Your task to perform on an android device: Open wifi settings Image 0: 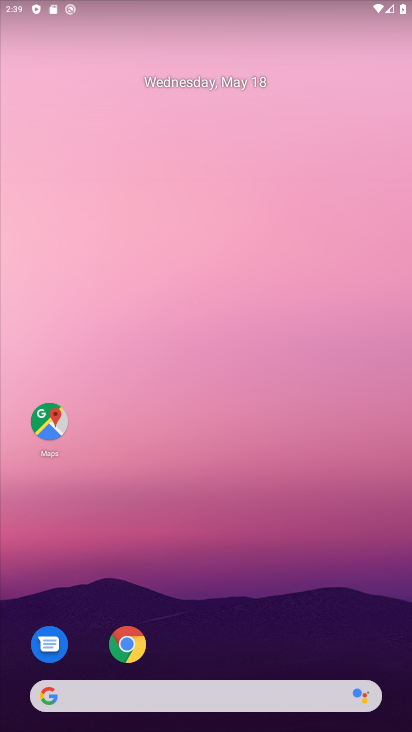
Step 0: drag from (194, 682) to (203, 166)
Your task to perform on an android device: Open wifi settings Image 1: 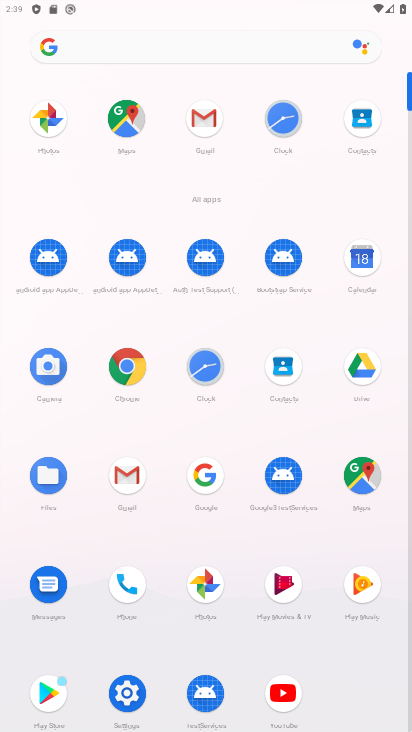
Step 1: drag from (153, 656) to (155, 277)
Your task to perform on an android device: Open wifi settings Image 2: 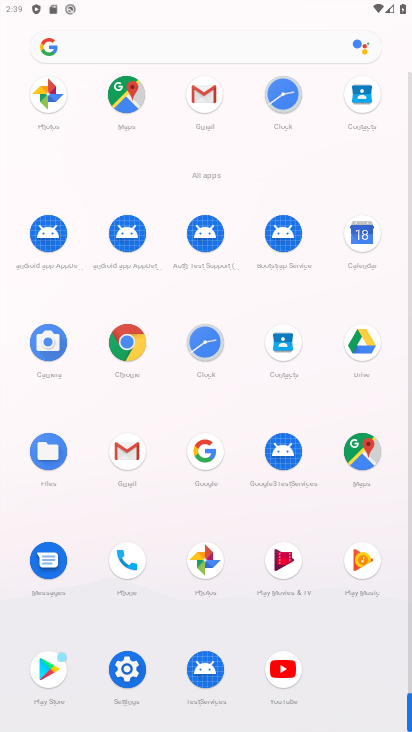
Step 2: click (139, 668)
Your task to perform on an android device: Open wifi settings Image 3: 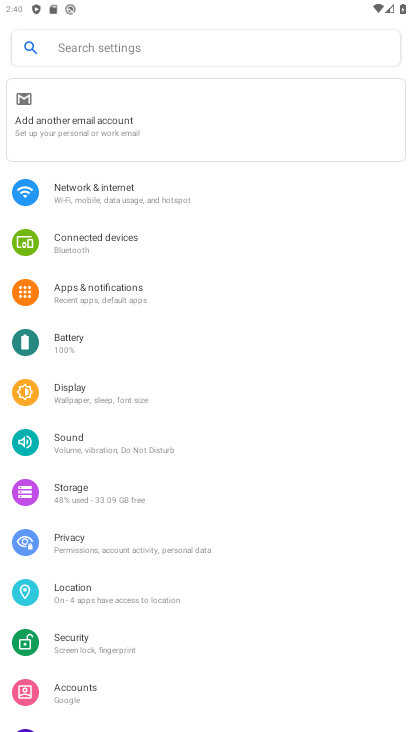
Step 3: drag from (60, 715) to (112, 418)
Your task to perform on an android device: Open wifi settings Image 4: 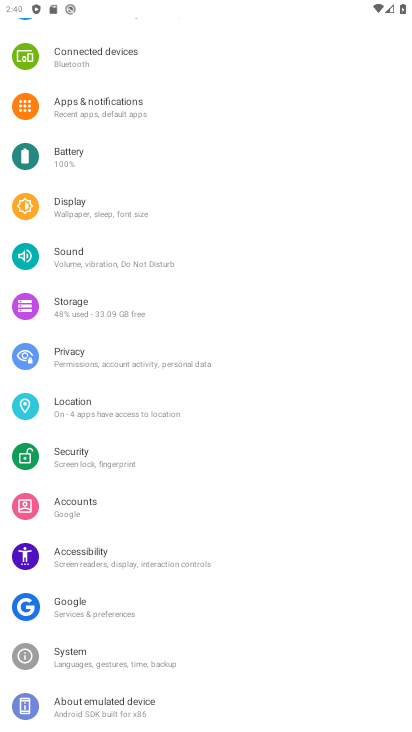
Step 4: drag from (161, 83) to (181, 592)
Your task to perform on an android device: Open wifi settings Image 5: 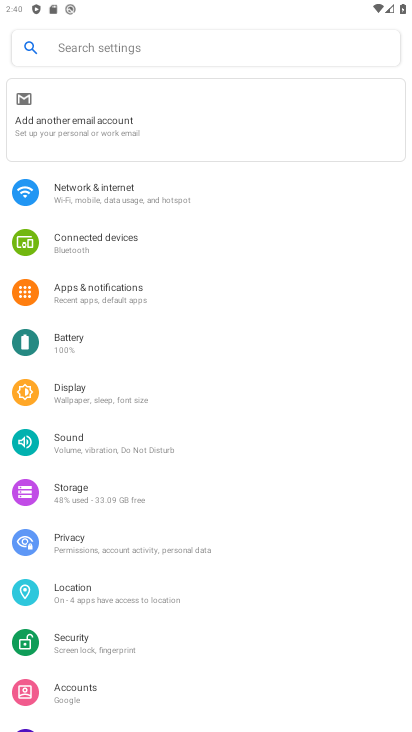
Step 5: click (113, 194)
Your task to perform on an android device: Open wifi settings Image 6: 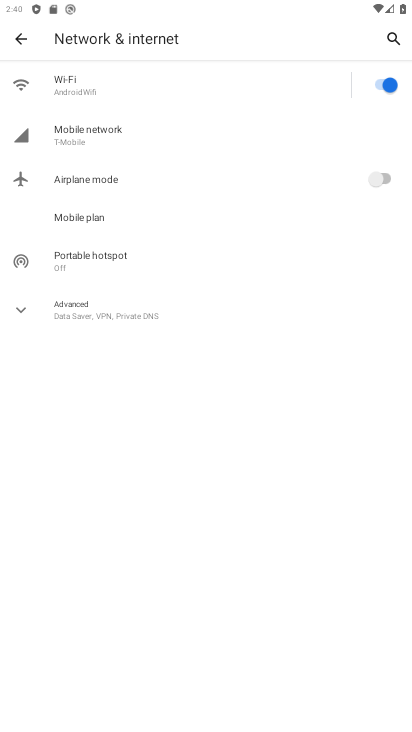
Step 6: task complete